Your task to perform on an android device: toggle location history Image 0: 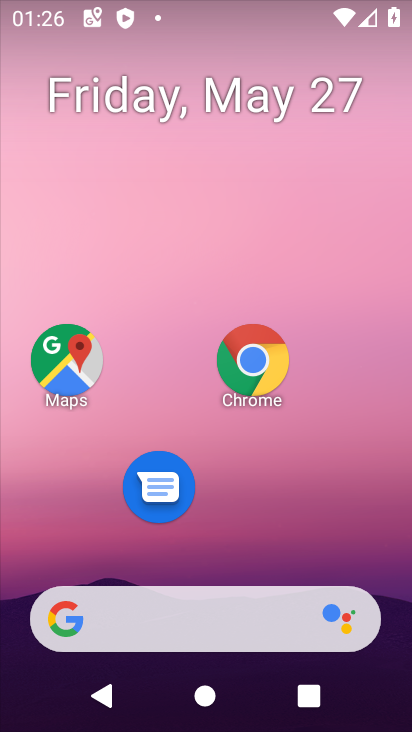
Step 0: drag from (250, 461) to (264, 51)
Your task to perform on an android device: toggle location history Image 1: 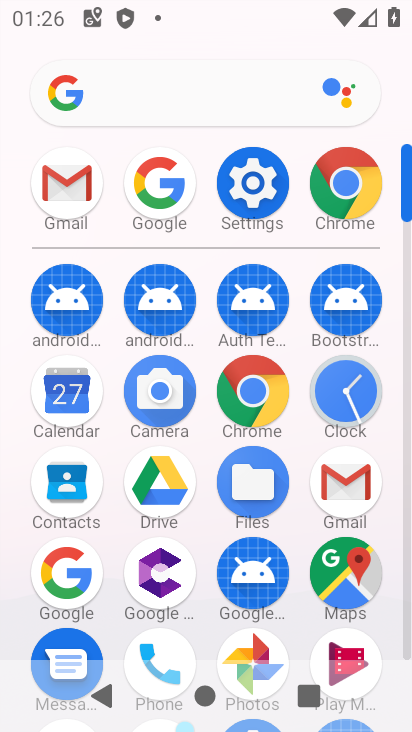
Step 1: click (255, 181)
Your task to perform on an android device: toggle location history Image 2: 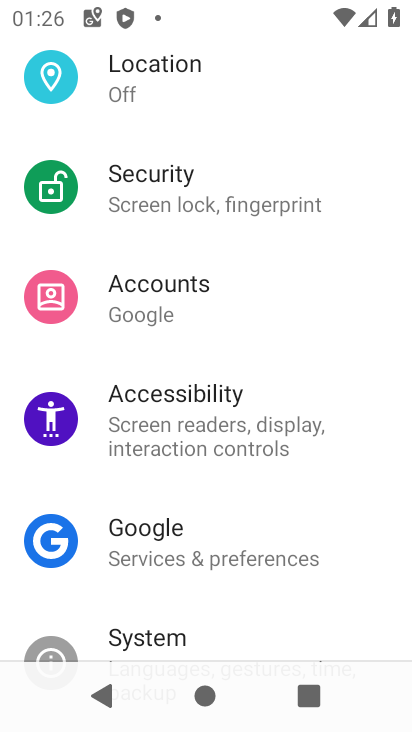
Step 2: click (159, 84)
Your task to perform on an android device: toggle location history Image 3: 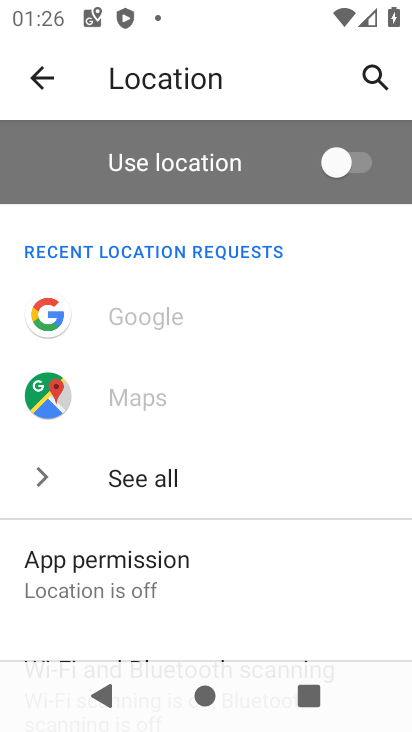
Step 3: drag from (249, 561) to (245, 78)
Your task to perform on an android device: toggle location history Image 4: 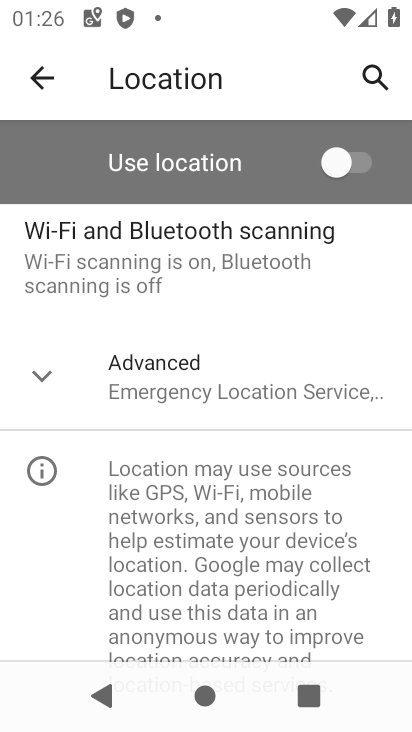
Step 4: click (130, 396)
Your task to perform on an android device: toggle location history Image 5: 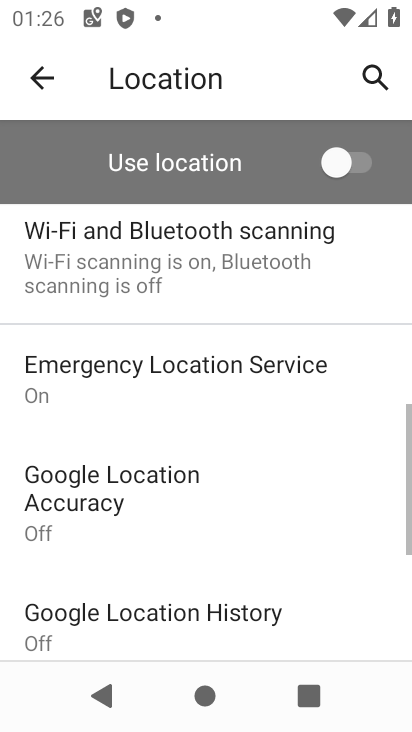
Step 5: drag from (219, 547) to (218, 416)
Your task to perform on an android device: toggle location history Image 6: 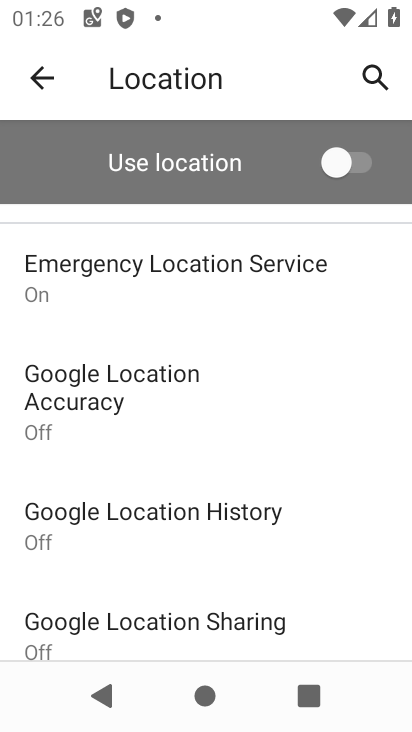
Step 6: click (169, 523)
Your task to perform on an android device: toggle location history Image 7: 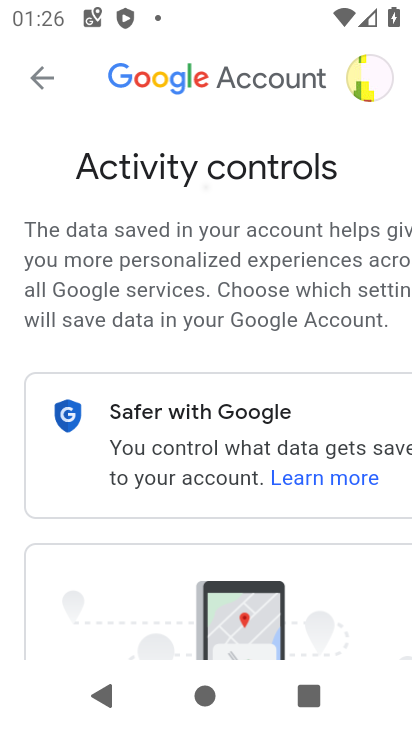
Step 7: drag from (374, 621) to (351, 40)
Your task to perform on an android device: toggle location history Image 8: 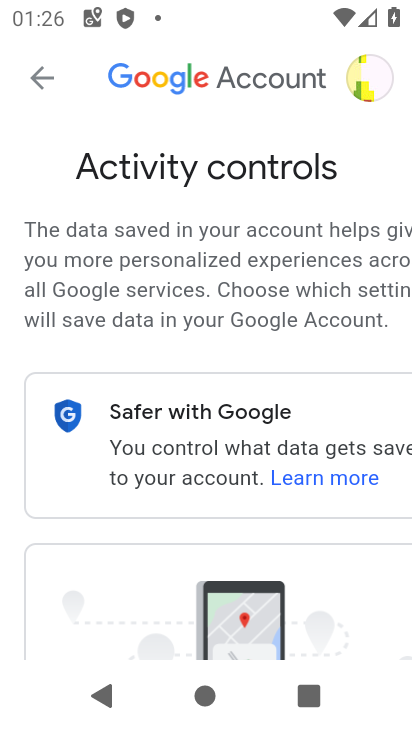
Step 8: drag from (178, 598) to (230, 99)
Your task to perform on an android device: toggle location history Image 9: 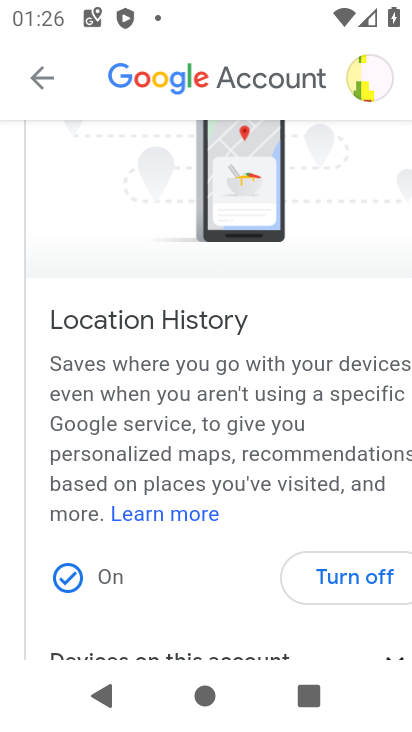
Step 9: click (344, 577)
Your task to perform on an android device: toggle location history Image 10: 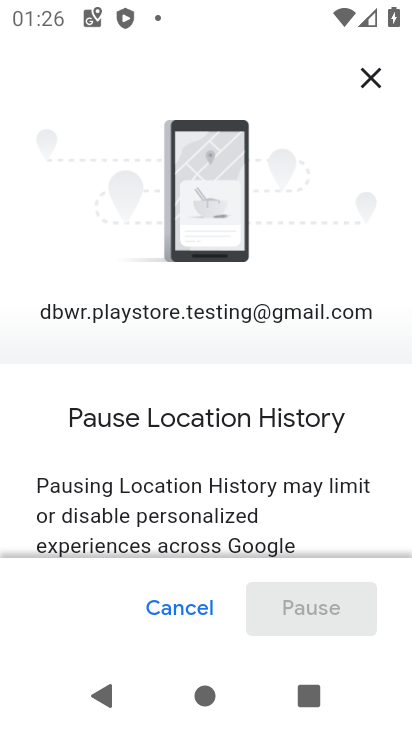
Step 10: drag from (327, 514) to (337, 38)
Your task to perform on an android device: toggle location history Image 11: 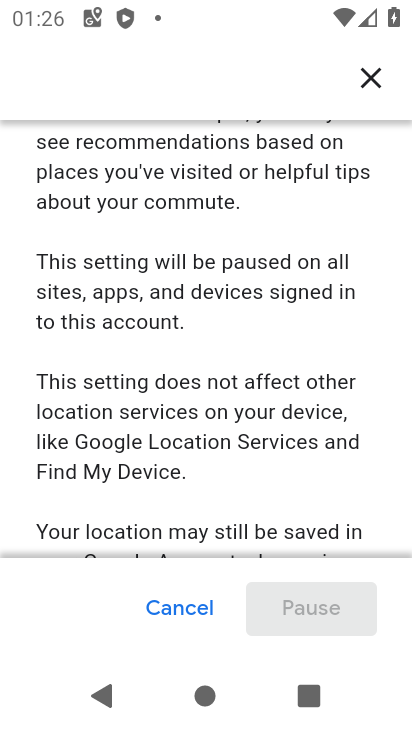
Step 11: drag from (337, 533) to (326, 119)
Your task to perform on an android device: toggle location history Image 12: 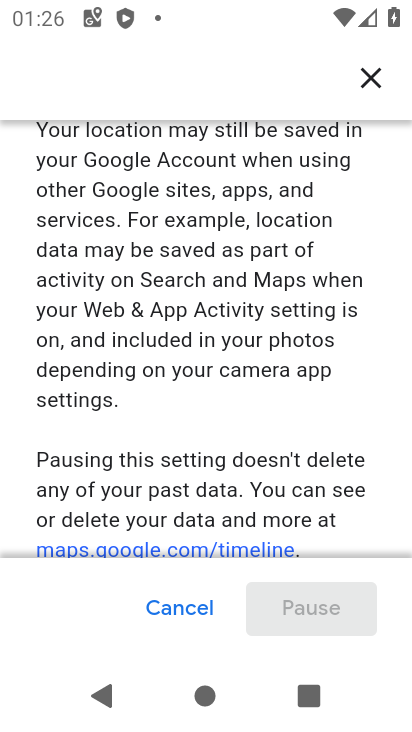
Step 12: drag from (343, 513) to (345, 166)
Your task to perform on an android device: toggle location history Image 13: 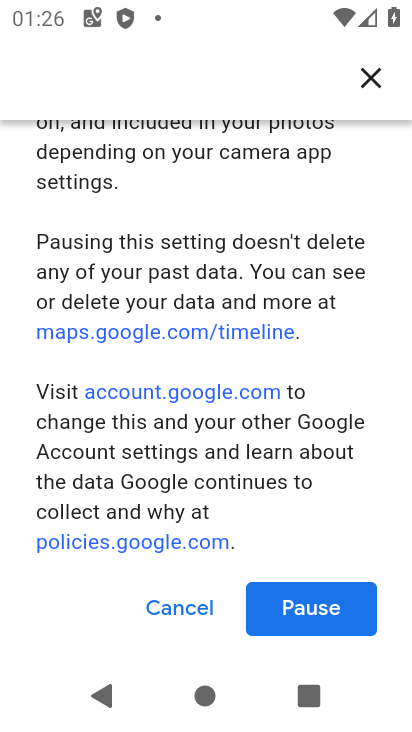
Step 13: click (312, 612)
Your task to perform on an android device: toggle location history Image 14: 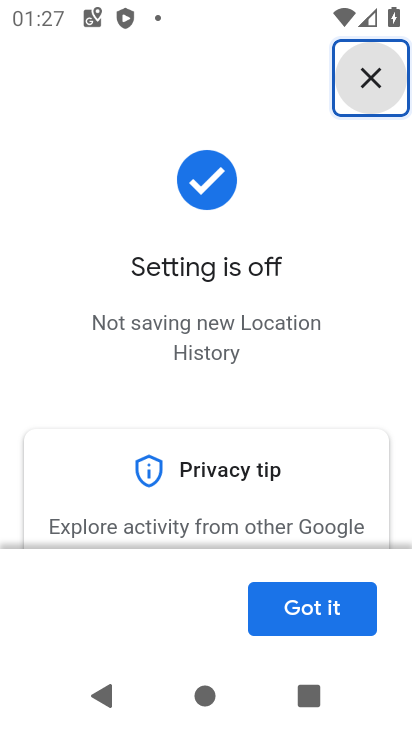
Step 14: click (314, 613)
Your task to perform on an android device: toggle location history Image 15: 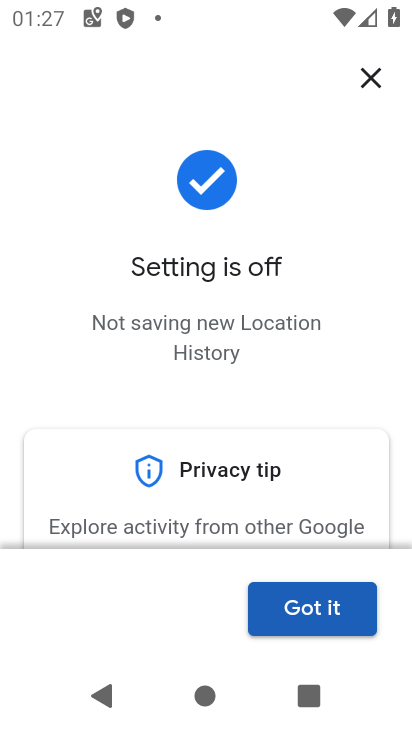
Step 15: click (320, 614)
Your task to perform on an android device: toggle location history Image 16: 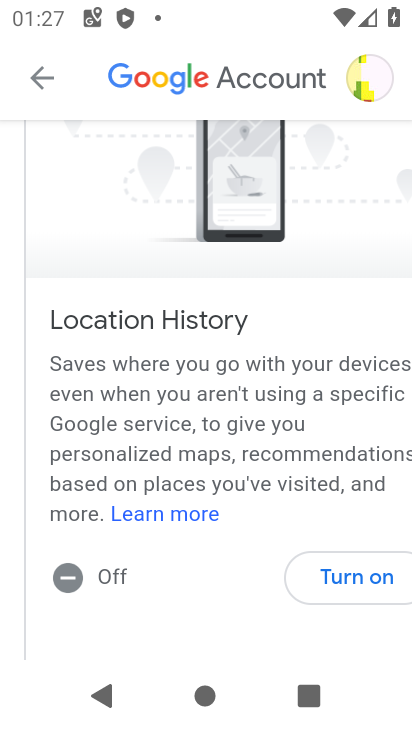
Step 16: task complete